Your task to perform on an android device: set default search engine in the chrome app Image 0: 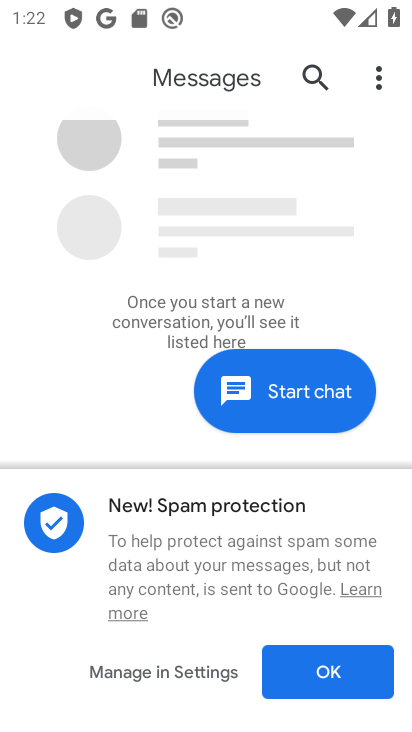
Step 0: press back button
Your task to perform on an android device: set default search engine in the chrome app Image 1: 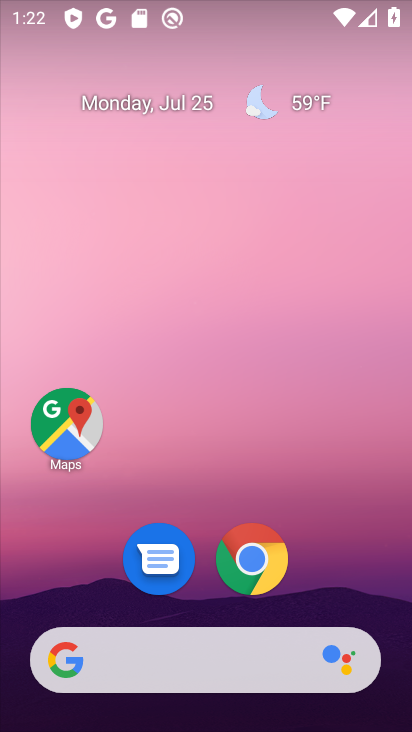
Step 1: click (256, 568)
Your task to perform on an android device: set default search engine in the chrome app Image 2: 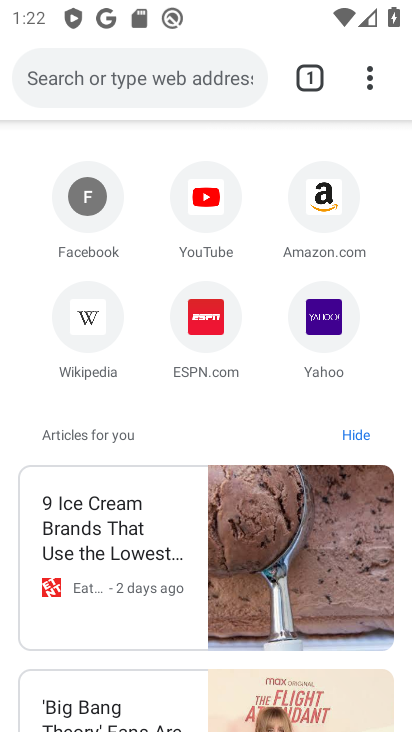
Step 2: drag from (378, 75) to (126, 615)
Your task to perform on an android device: set default search engine in the chrome app Image 3: 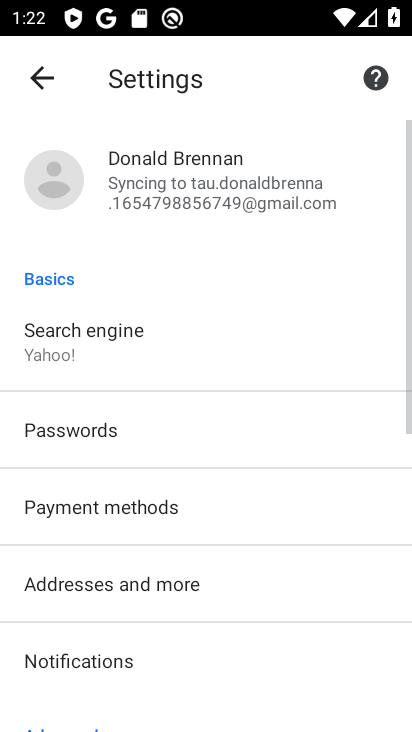
Step 3: drag from (137, 656) to (266, 129)
Your task to perform on an android device: set default search engine in the chrome app Image 4: 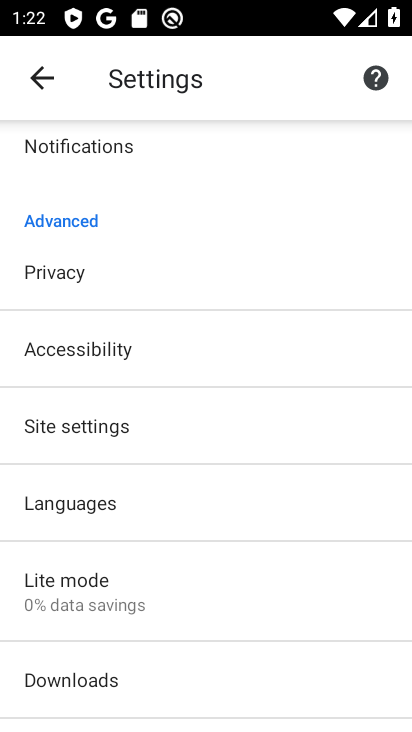
Step 4: drag from (182, 220) to (180, 729)
Your task to perform on an android device: set default search engine in the chrome app Image 5: 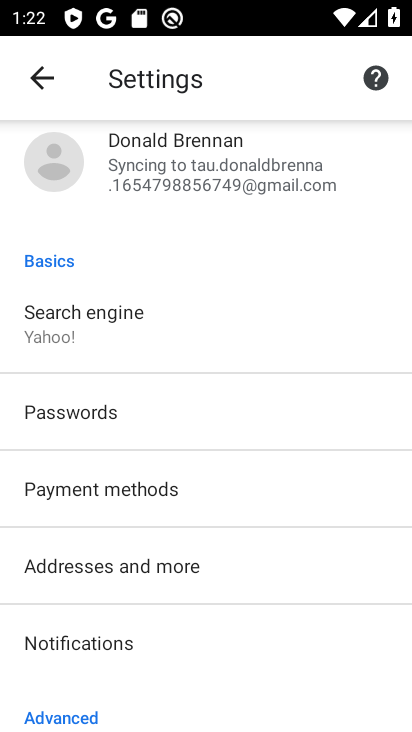
Step 5: click (76, 324)
Your task to perform on an android device: set default search engine in the chrome app Image 6: 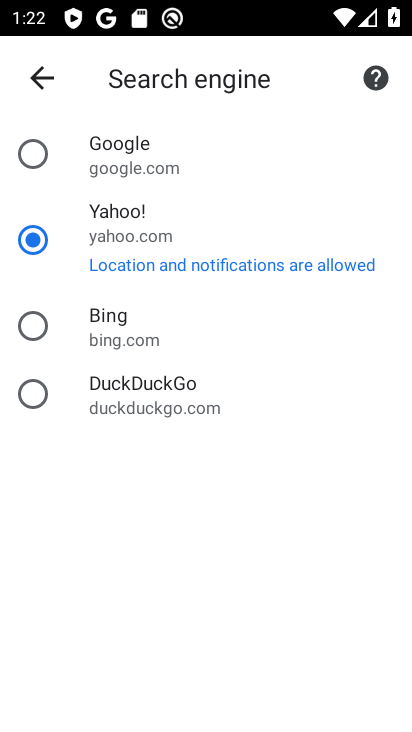
Step 6: click (30, 324)
Your task to perform on an android device: set default search engine in the chrome app Image 7: 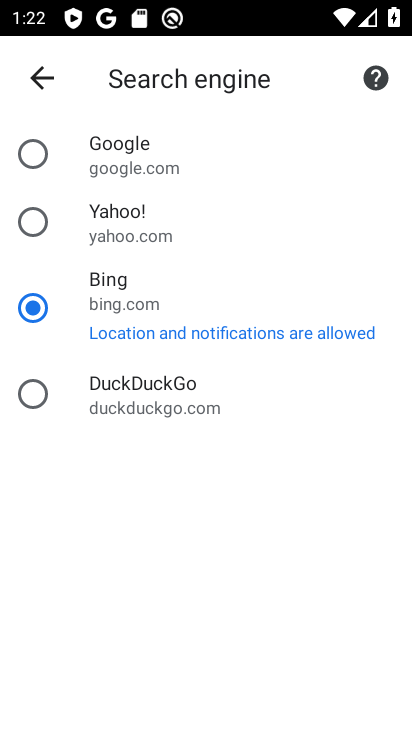
Step 7: task complete